Your task to perform on an android device: open app "HBO Max: Stream TV & Movies" (install if not already installed), go to login, and select forgot password Image 0: 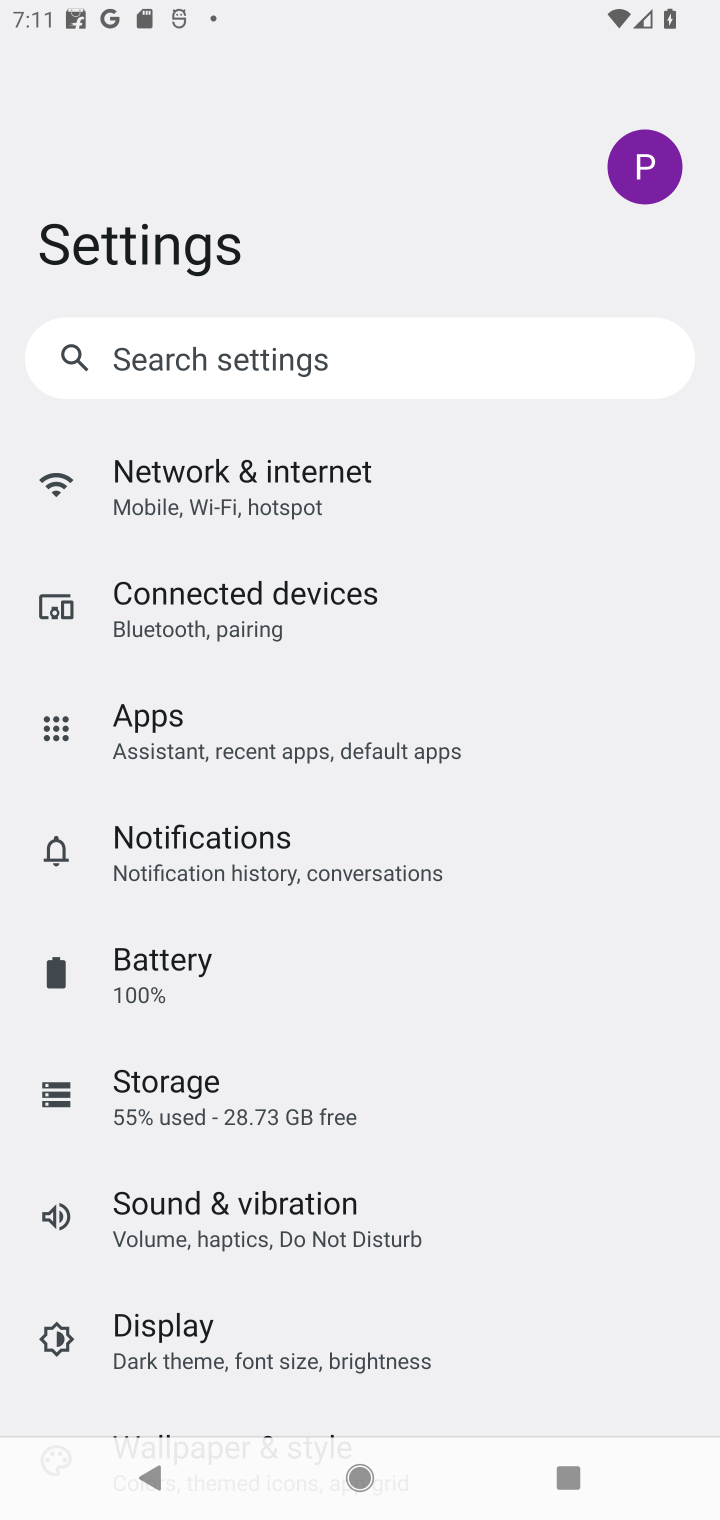
Step 0: press home button
Your task to perform on an android device: open app "HBO Max: Stream TV & Movies" (install if not already installed), go to login, and select forgot password Image 1: 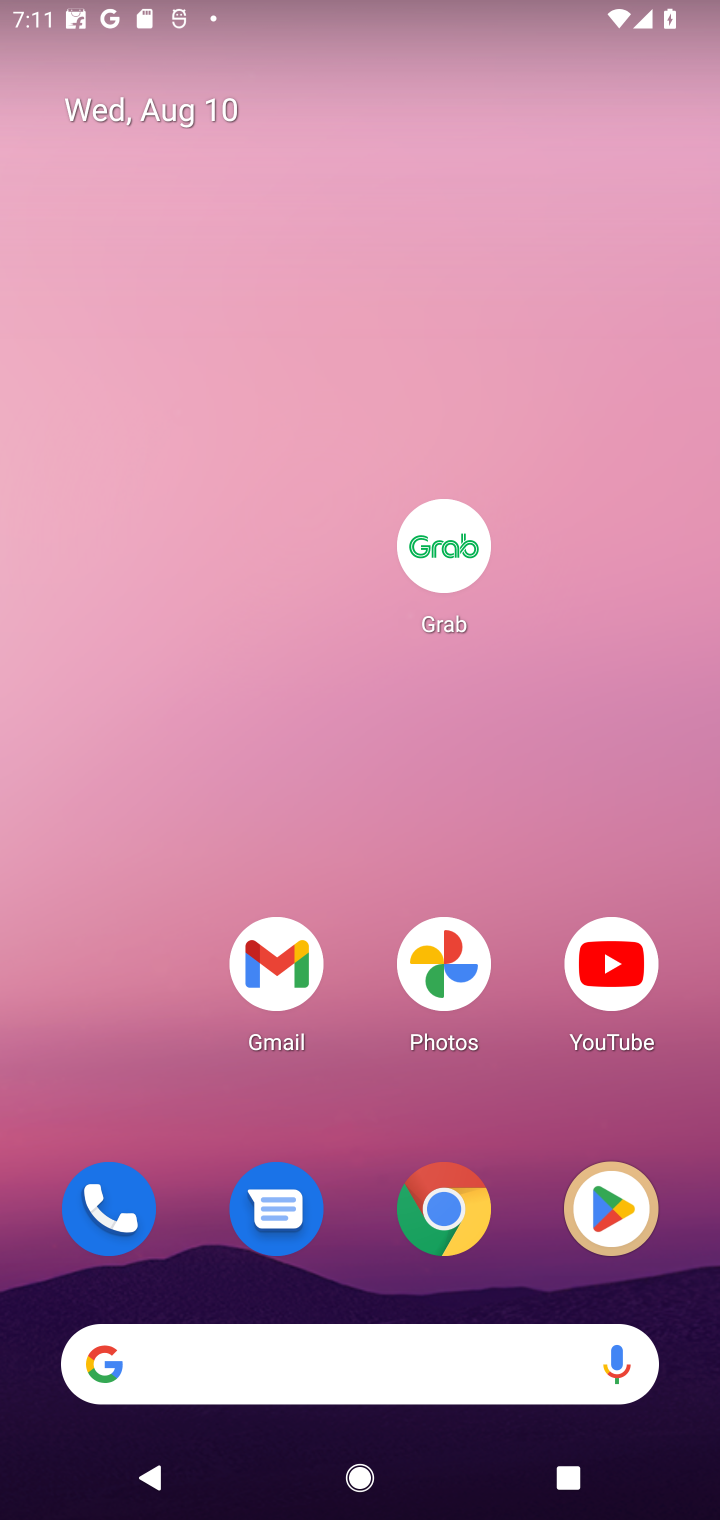
Step 1: click (335, 1252)
Your task to perform on an android device: open app "HBO Max: Stream TV & Movies" (install if not already installed), go to login, and select forgot password Image 2: 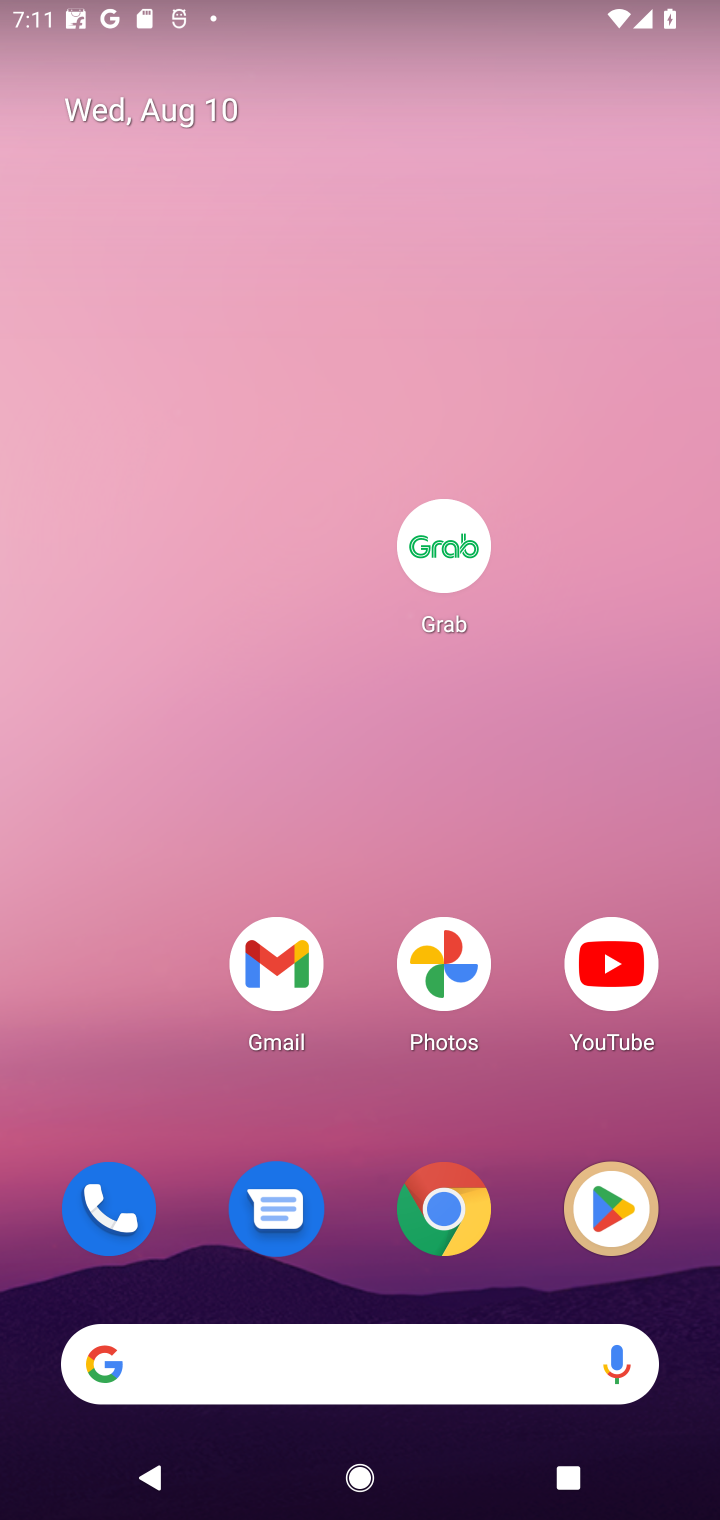
Step 2: click (581, 1204)
Your task to perform on an android device: open app "HBO Max: Stream TV & Movies" (install if not already installed), go to login, and select forgot password Image 3: 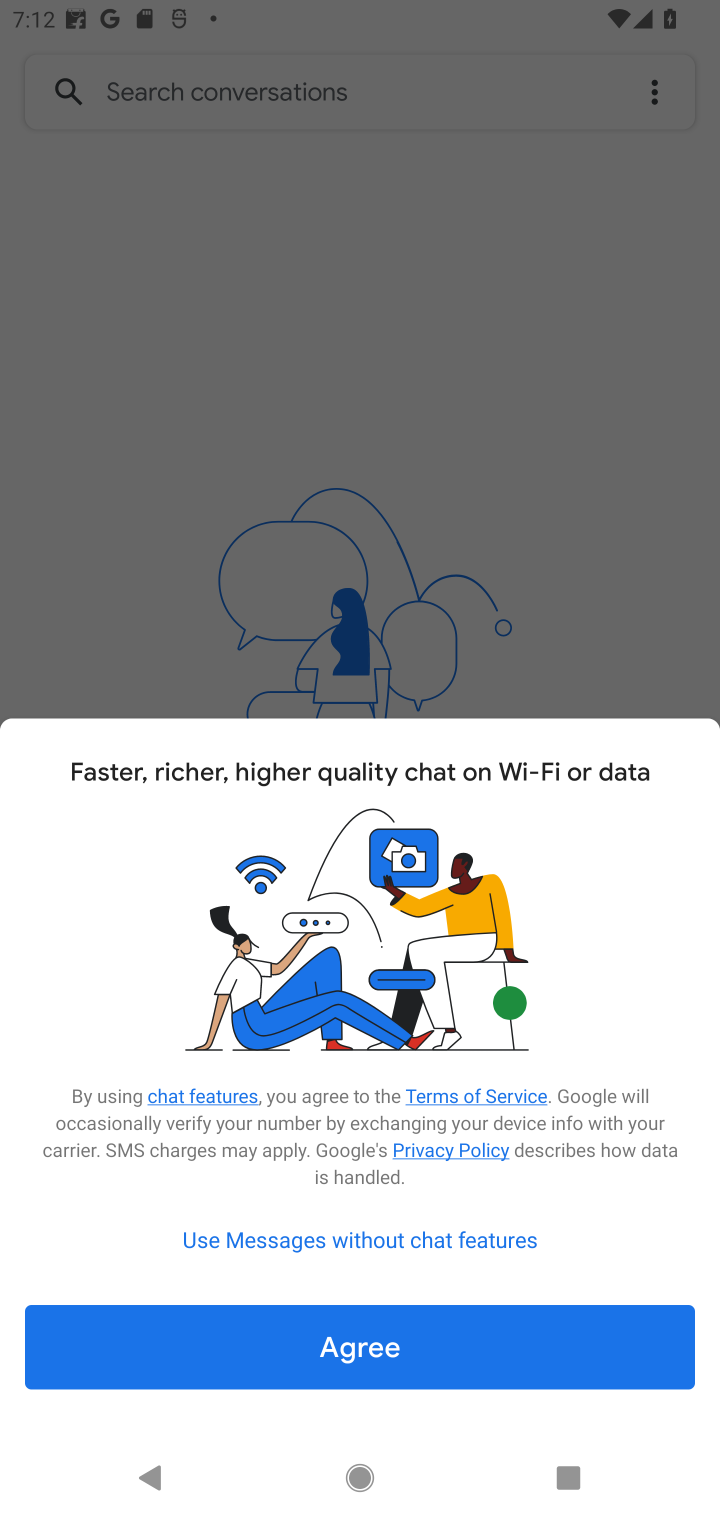
Step 3: press home button
Your task to perform on an android device: open app "HBO Max: Stream TV & Movies" (install if not already installed), go to login, and select forgot password Image 4: 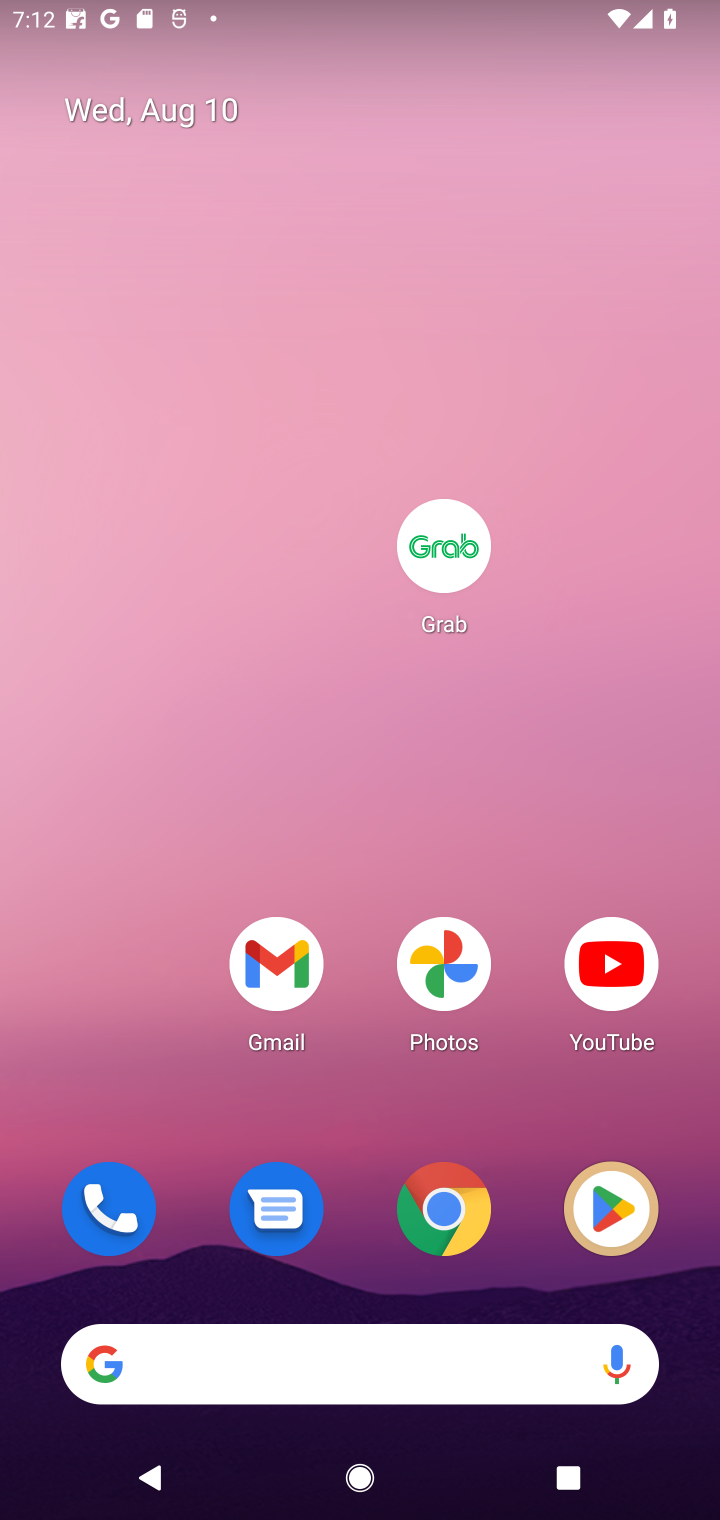
Step 4: click (604, 1237)
Your task to perform on an android device: open app "HBO Max: Stream TV & Movies" (install if not already installed), go to login, and select forgot password Image 5: 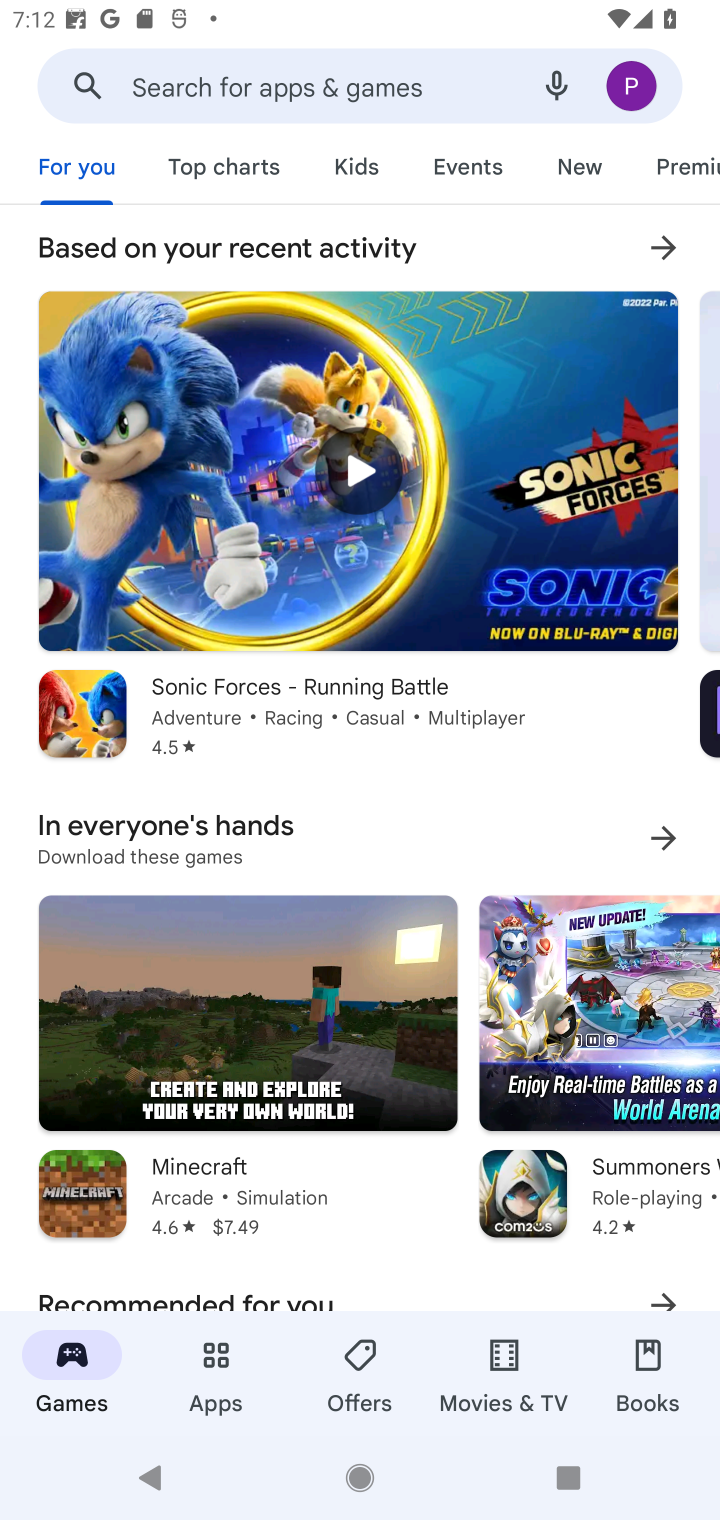
Step 5: click (342, 81)
Your task to perform on an android device: open app "HBO Max: Stream TV & Movies" (install if not already installed), go to login, and select forgot password Image 6: 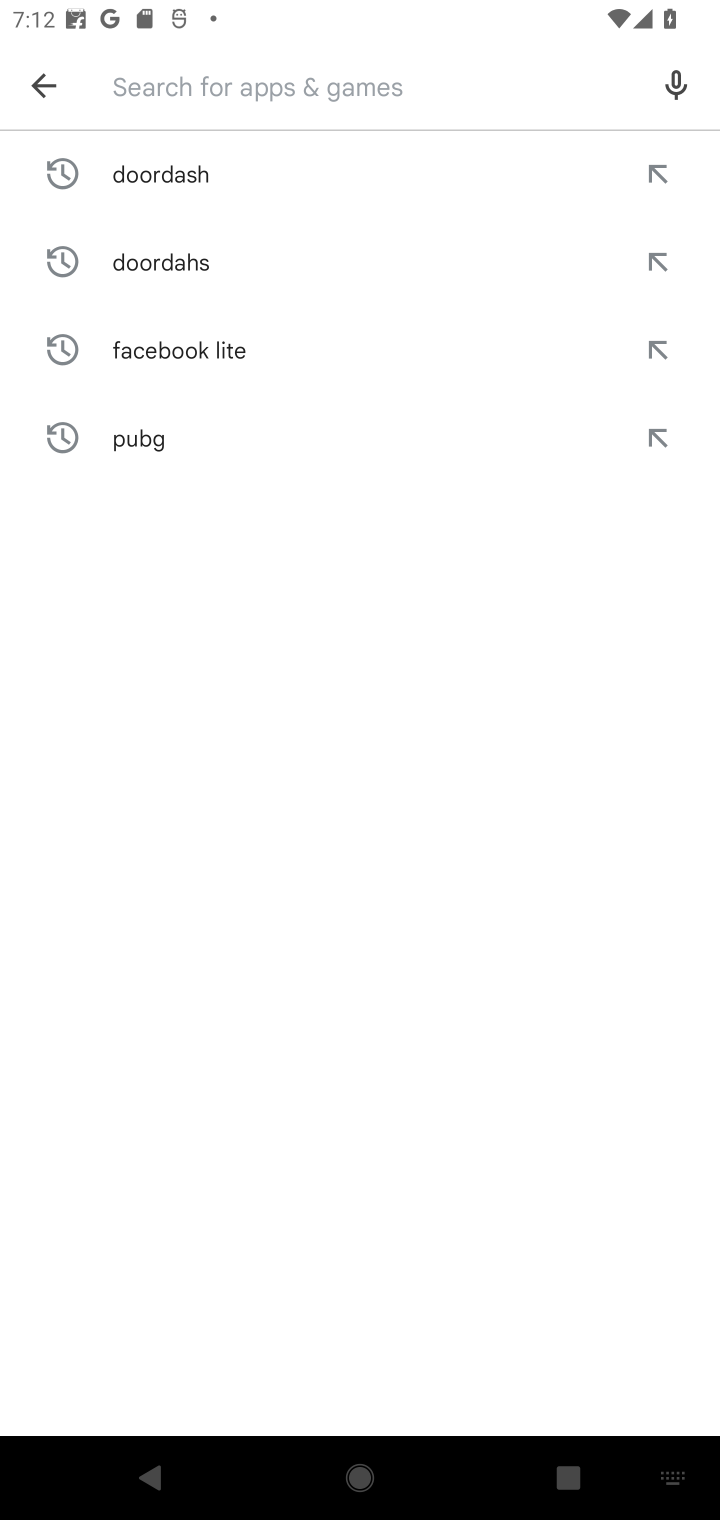
Step 6: type "hbo"
Your task to perform on an android device: open app "HBO Max: Stream TV & Movies" (install if not already installed), go to login, and select forgot password Image 7: 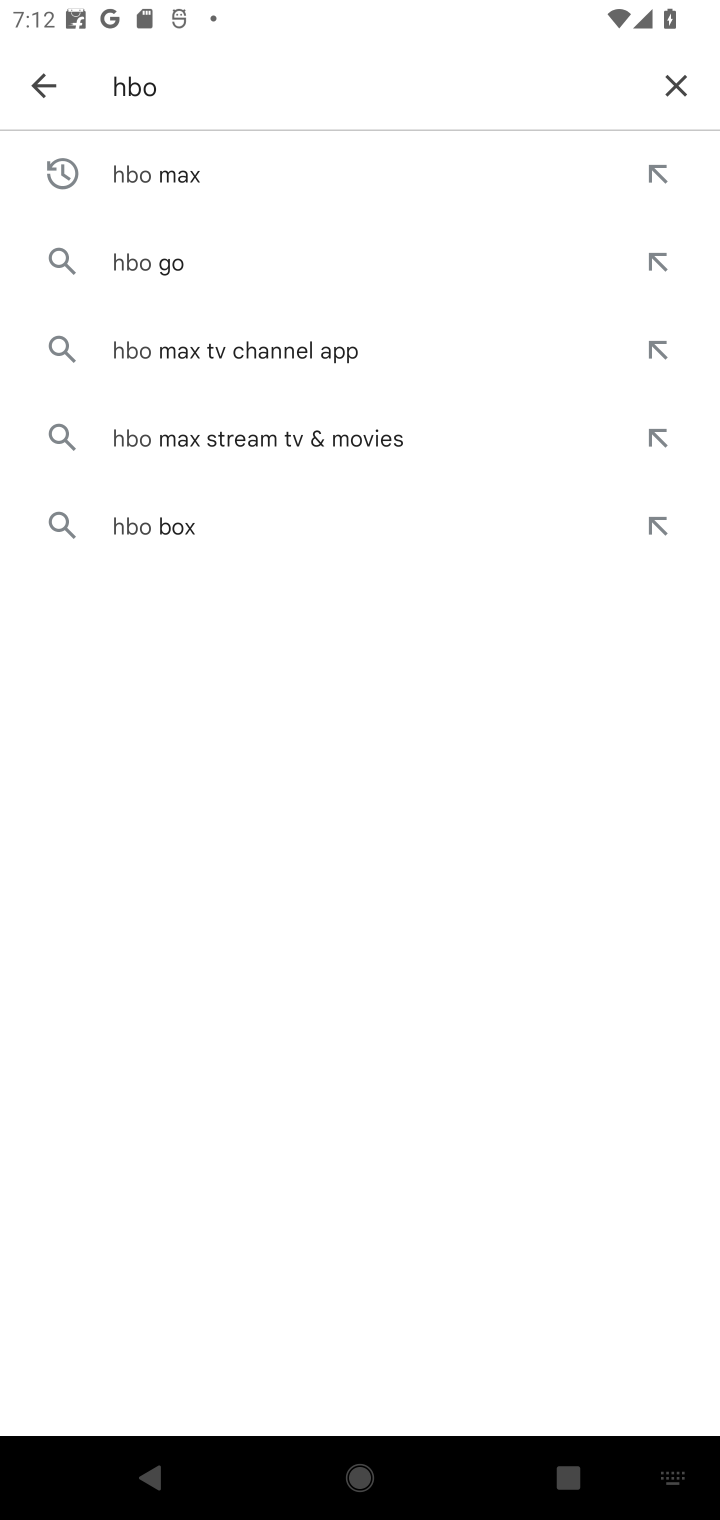
Step 7: click (194, 205)
Your task to perform on an android device: open app "HBO Max: Stream TV & Movies" (install if not already installed), go to login, and select forgot password Image 8: 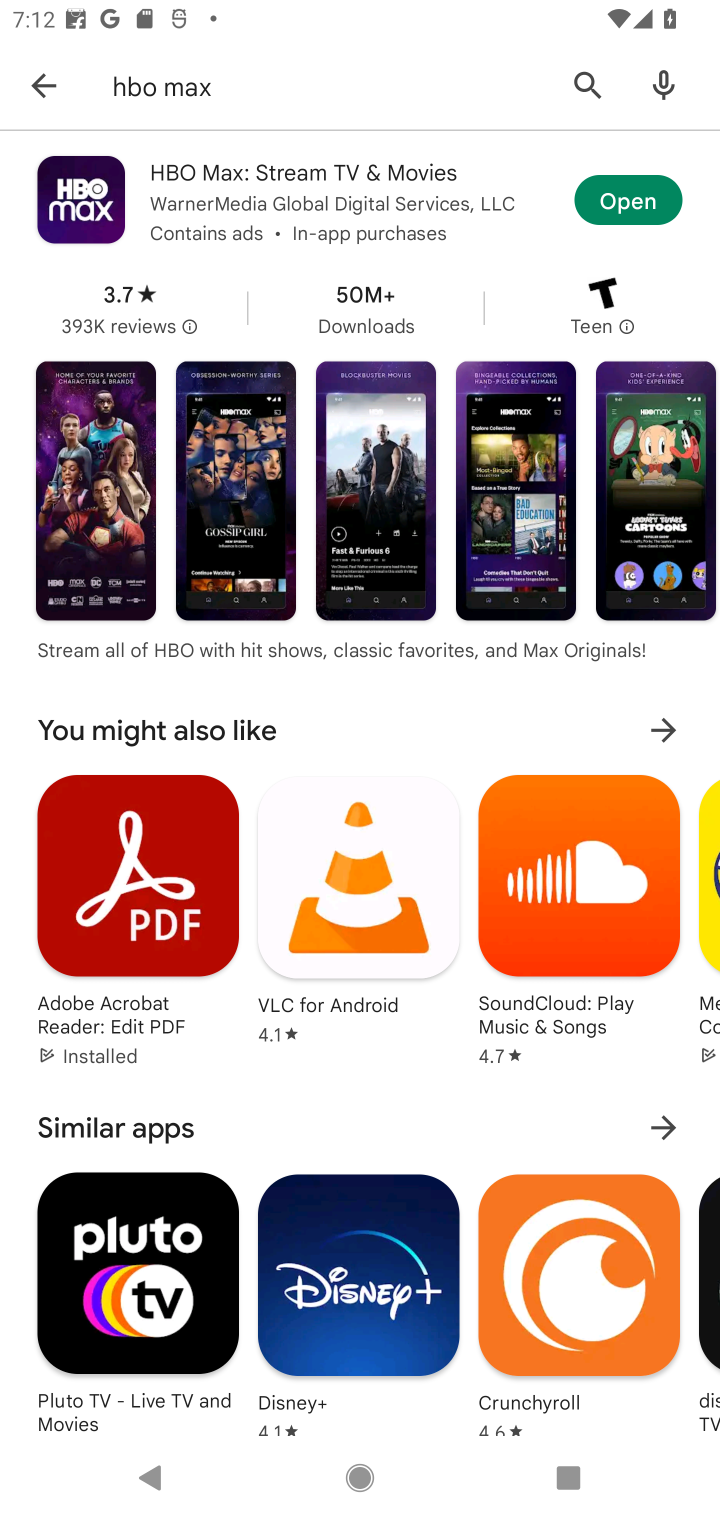
Step 8: click (607, 215)
Your task to perform on an android device: open app "HBO Max: Stream TV & Movies" (install if not already installed), go to login, and select forgot password Image 9: 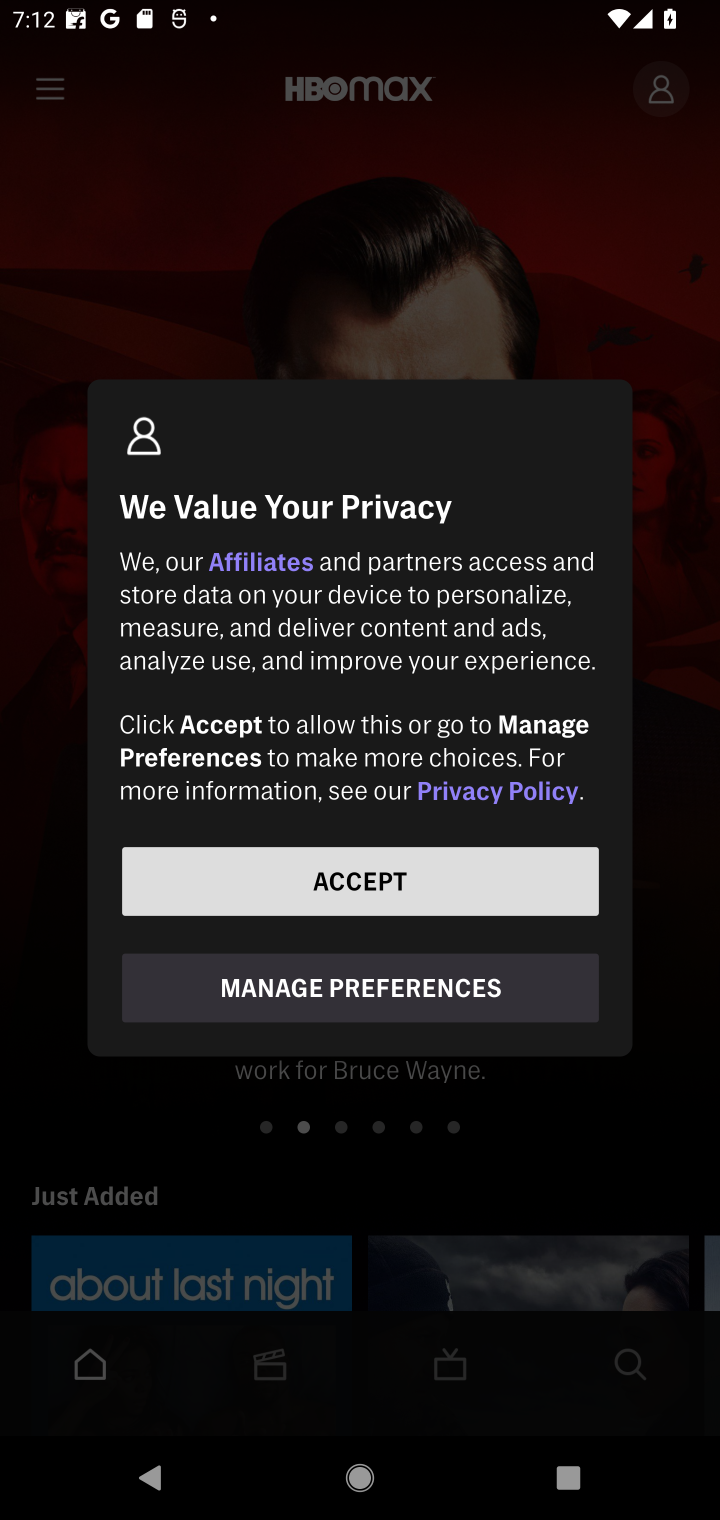
Step 9: task complete